Your task to perform on an android device: remove spam from my inbox in the gmail app Image 0: 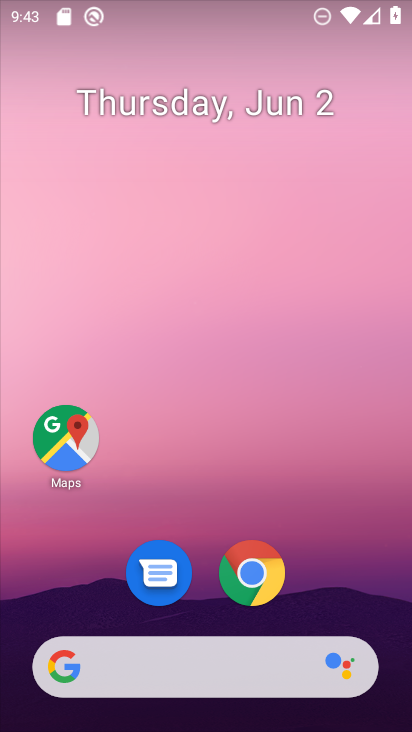
Step 0: drag from (307, 493) to (251, 284)
Your task to perform on an android device: remove spam from my inbox in the gmail app Image 1: 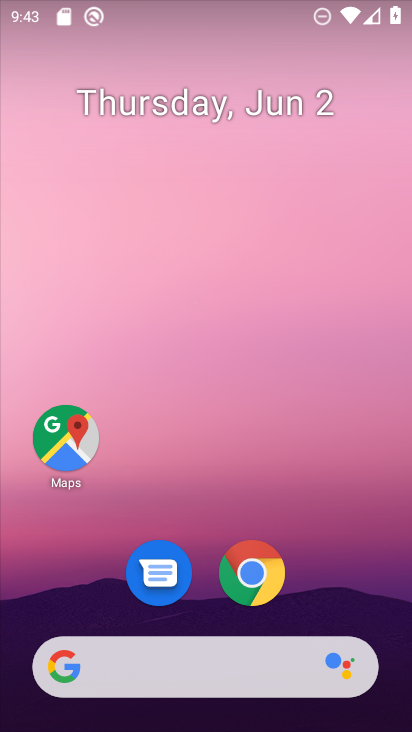
Step 1: drag from (319, 472) to (286, 121)
Your task to perform on an android device: remove spam from my inbox in the gmail app Image 2: 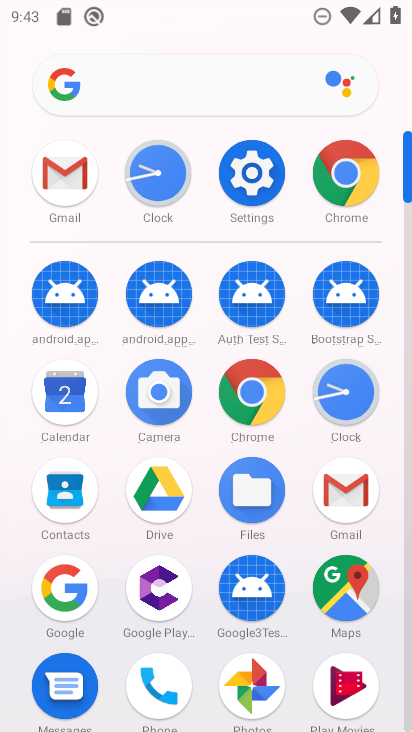
Step 2: click (69, 174)
Your task to perform on an android device: remove spam from my inbox in the gmail app Image 3: 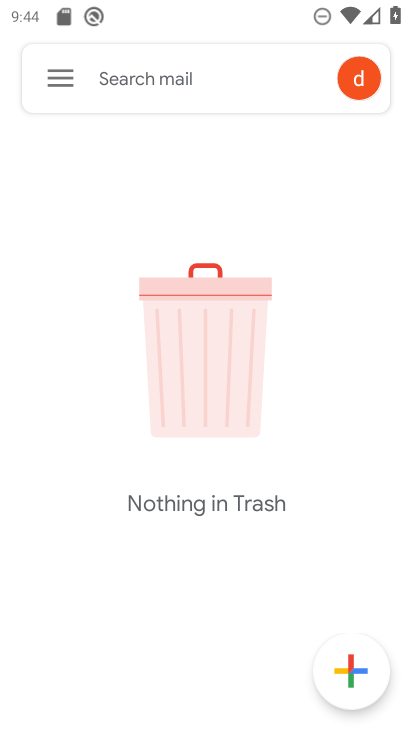
Step 3: click (68, 68)
Your task to perform on an android device: remove spam from my inbox in the gmail app Image 4: 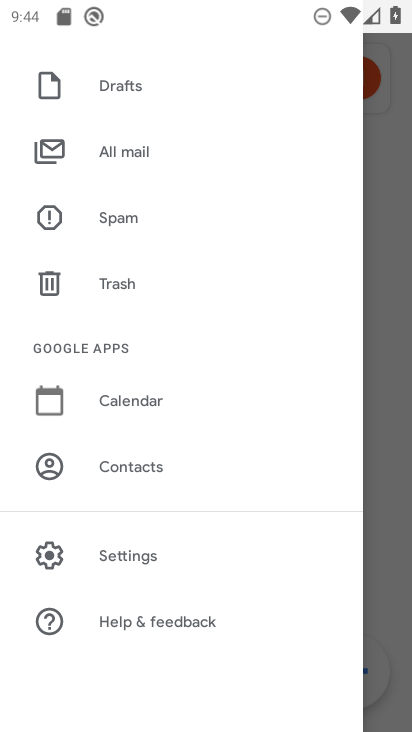
Step 4: drag from (143, 167) to (127, 541)
Your task to perform on an android device: remove spam from my inbox in the gmail app Image 5: 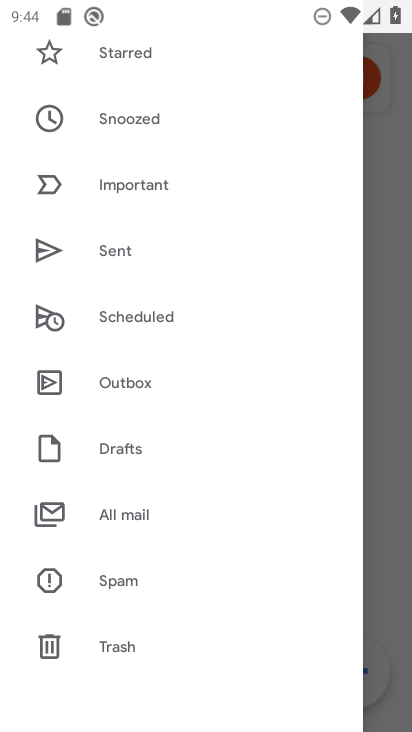
Step 5: drag from (128, 177) to (118, 496)
Your task to perform on an android device: remove spam from my inbox in the gmail app Image 6: 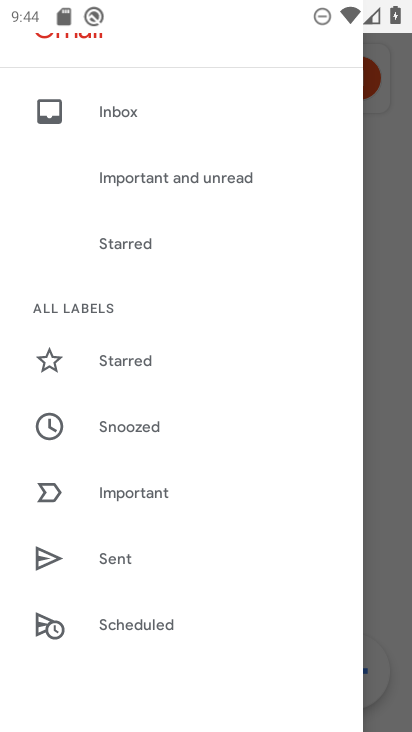
Step 6: click (110, 111)
Your task to perform on an android device: remove spam from my inbox in the gmail app Image 7: 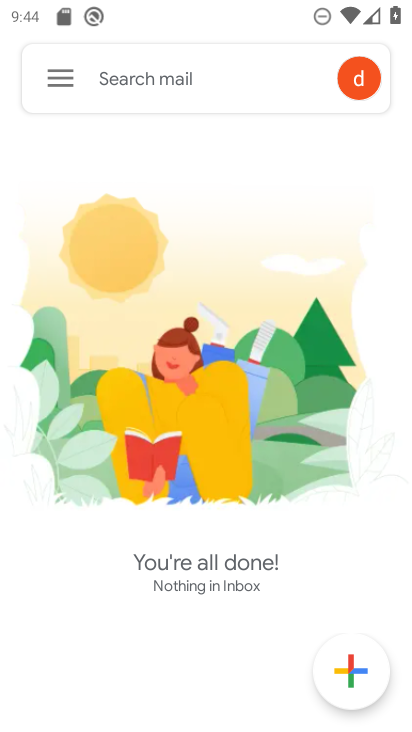
Step 7: task complete